Your task to perform on an android device: turn off airplane mode Image 0: 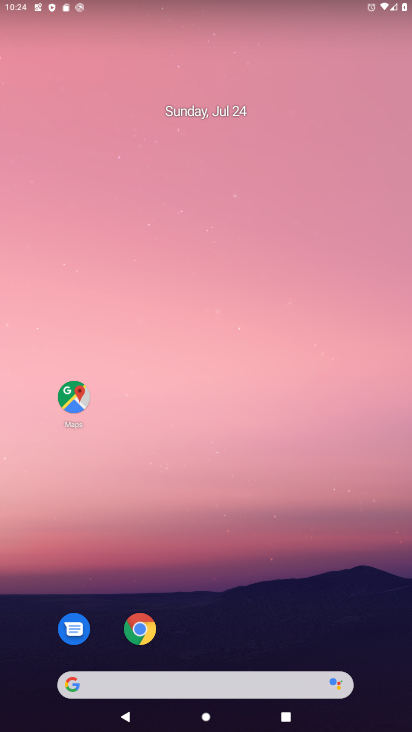
Step 0: click (228, 228)
Your task to perform on an android device: turn off airplane mode Image 1: 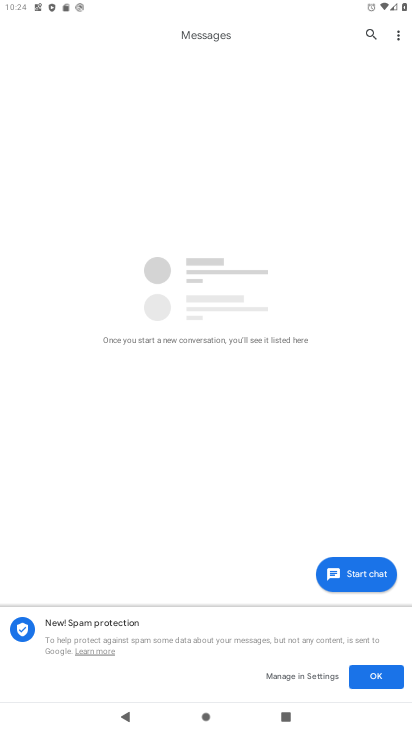
Step 1: press home button
Your task to perform on an android device: turn off airplane mode Image 2: 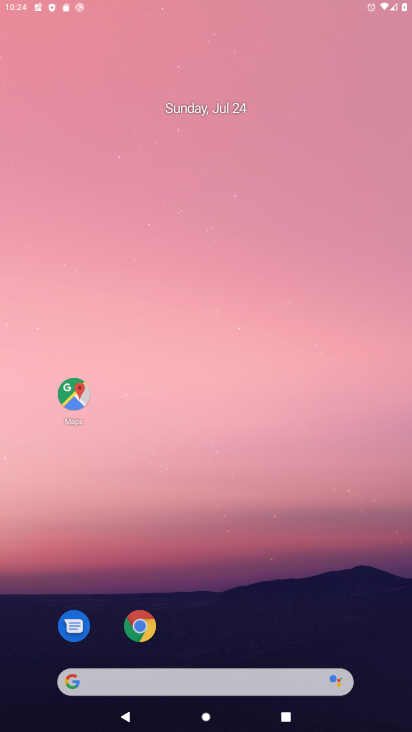
Step 2: drag from (195, 597) to (261, 93)
Your task to perform on an android device: turn off airplane mode Image 3: 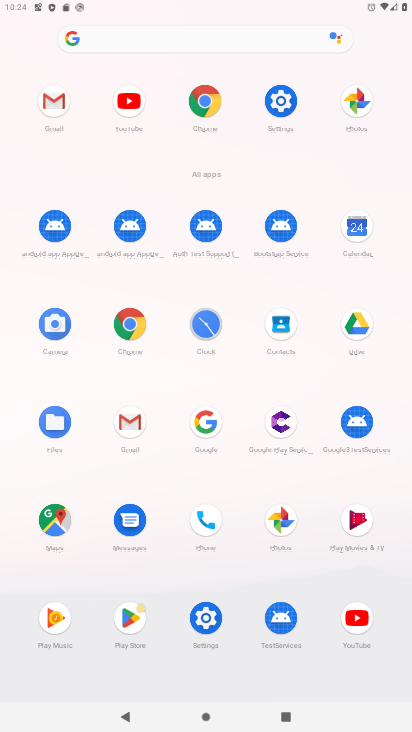
Step 3: click (282, 86)
Your task to perform on an android device: turn off airplane mode Image 4: 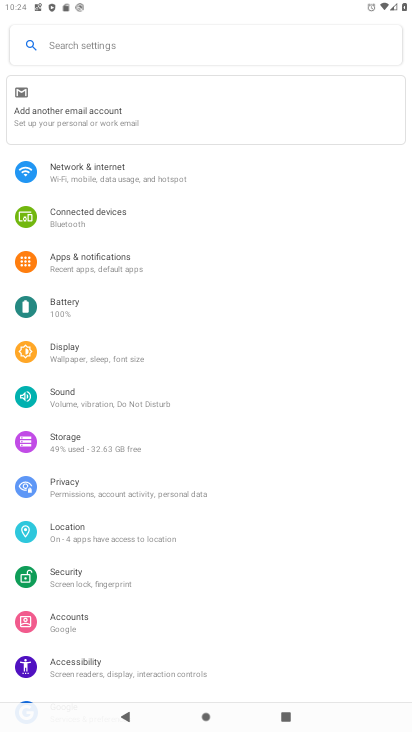
Step 4: click (133, 190)
Your task to perform on an android device: turn off airplane mode Image 5: 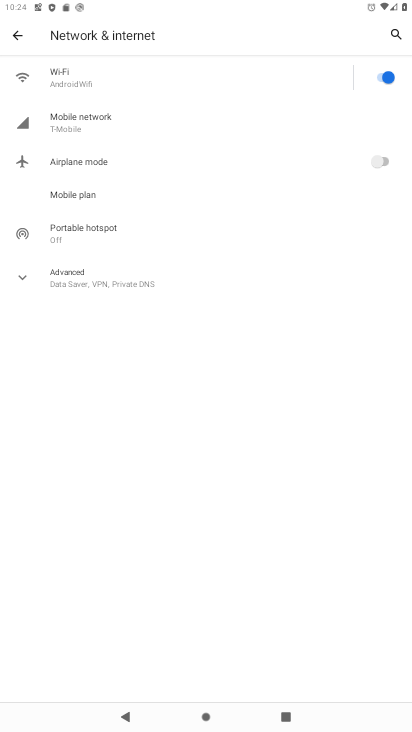
Step 5: task complete